Your task to perform on an android device: turn vacation reply on in the gmail app Image 0: 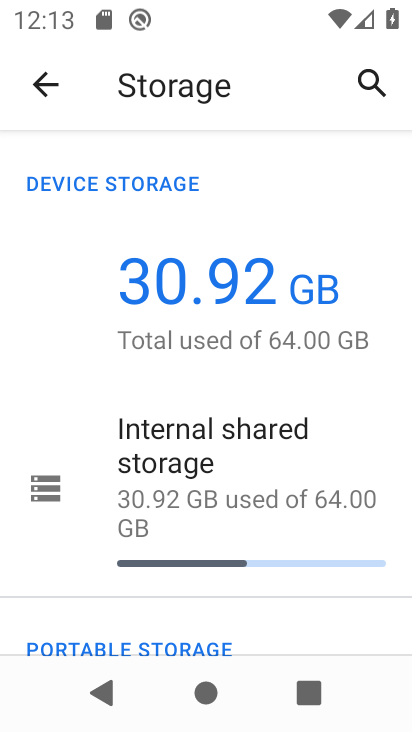
Step 0: press home button
Your task to perform on an android device: turn vacation reply on in the gmail app Image 1: 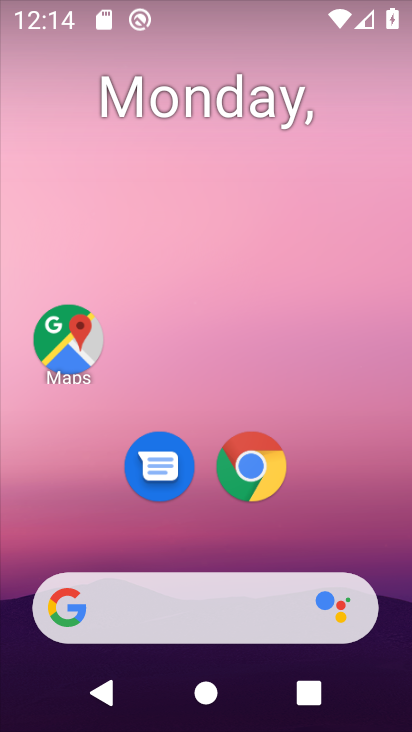
Step 1: drag from (242, 535) to (199, 48)
Your task to perform on an android device: turn vacation reply on in the gmail app Image 2: 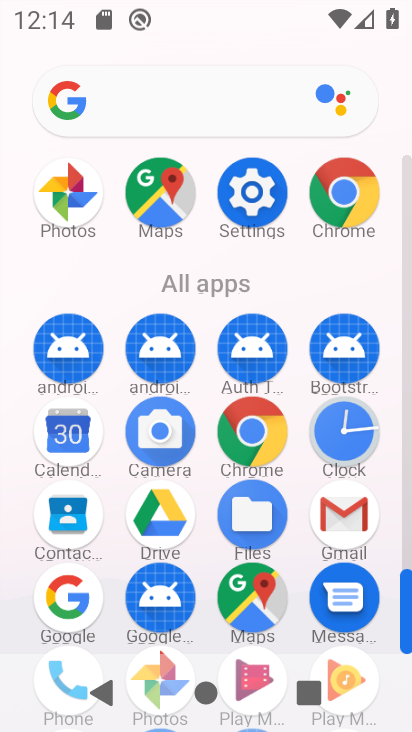
Step 2: click (351, 529)
Your task to perform on an android device: turn vacation reply on in the gmail app Image 3: 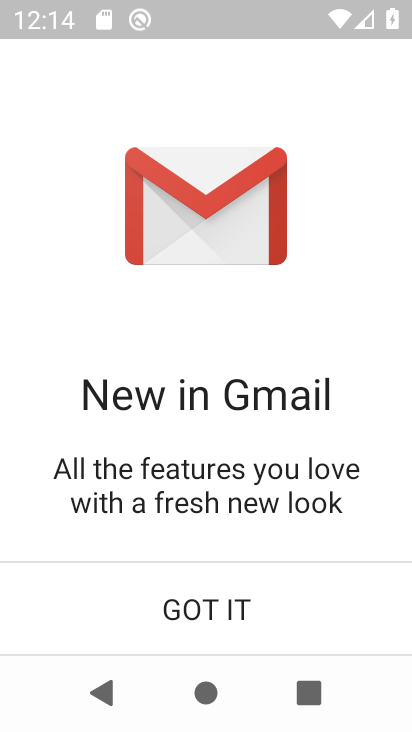
Step 3: click (194, 619)
Your task to perform on an android device: turn vacation reply on in the gmail app Image 4: 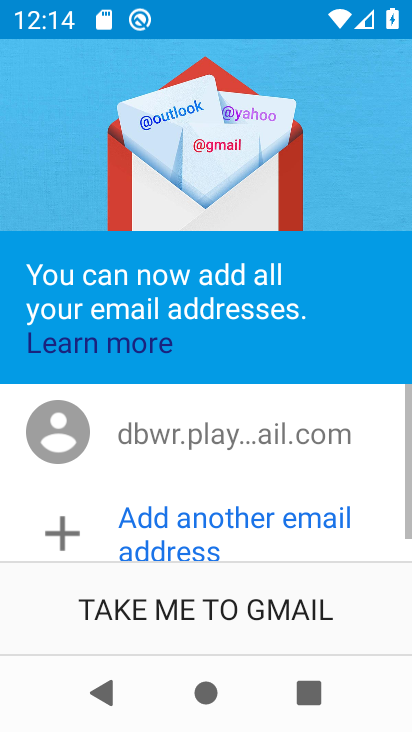
Step 4: click (194, 619)
Your task to perform on an android device: turn vacation reply on in the gmail app Image 5: 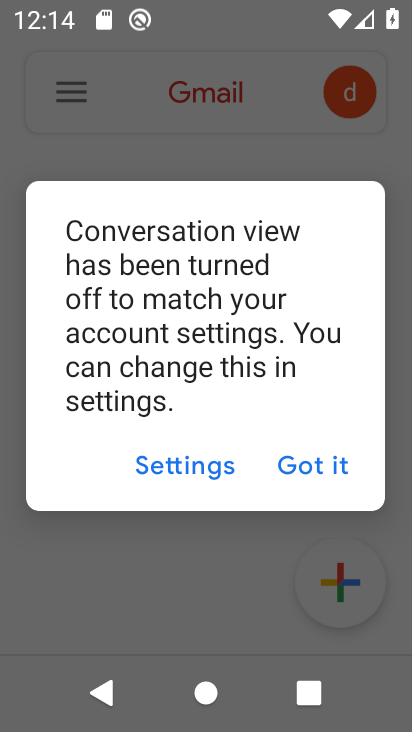
Step 5: click (300, 480)
Your task to perform on an android device: turn vacation reply on in the gmail app Image 6: 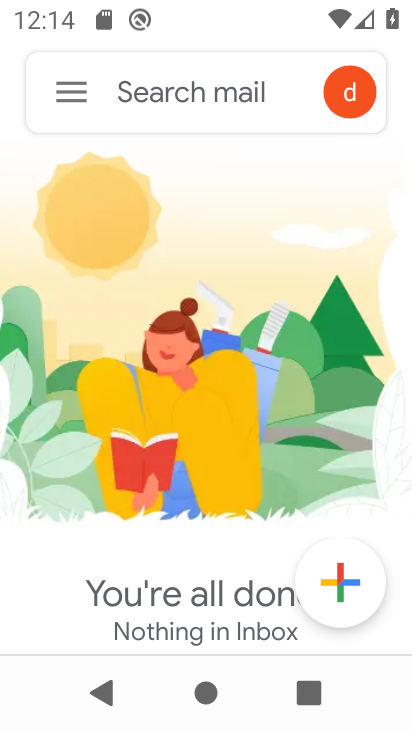
Step 6: click (61, 79)
Your task to perform on an android device: turn vacation reply on in the gmail app Image 7: 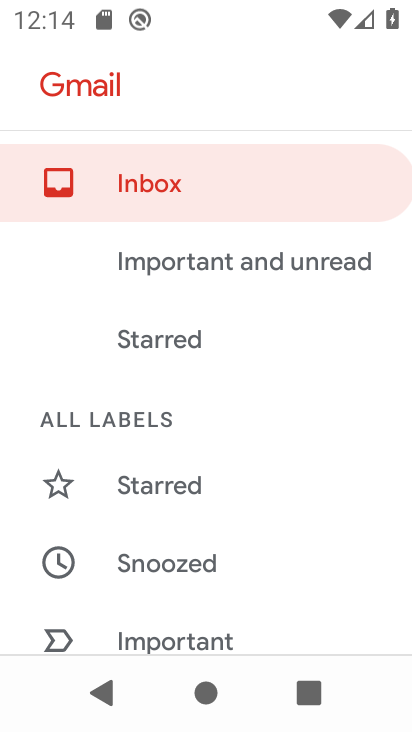
Step 7: drag from (173, 502) to (247, 10)
Your task to perform on an android device: turn vacation reply on in the gmail app Image 8: 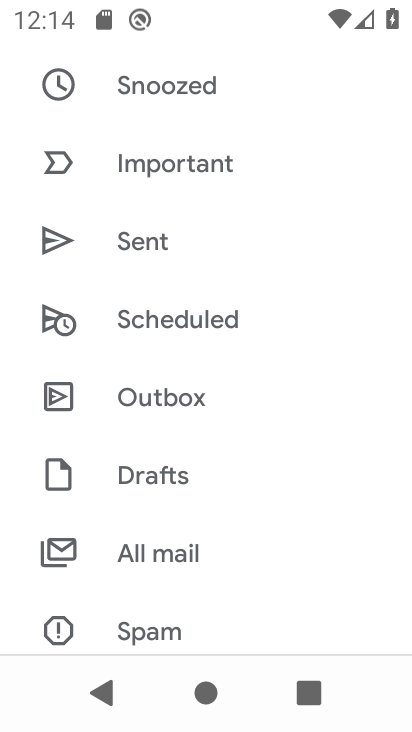
Step 8: drag from (160, 600) to (170, 267)
Your task to perform on an android device: turn vacation reply on in the gmail app Image 9: 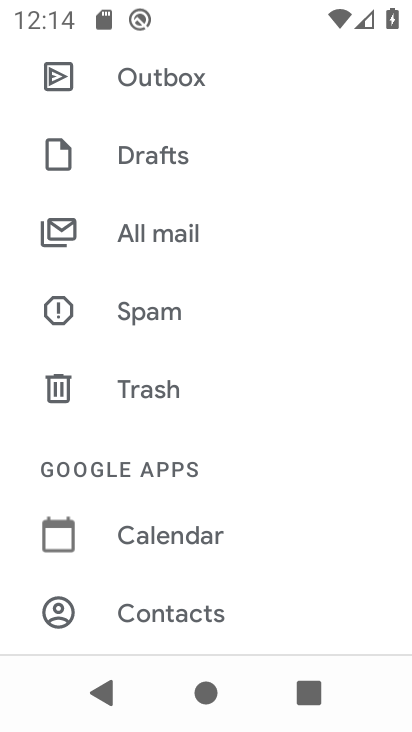
Step 9: drag from (193, 606) to (207, 183)
Your task to perform on an android device: turn vacation reply on in the gmail app Image 10: 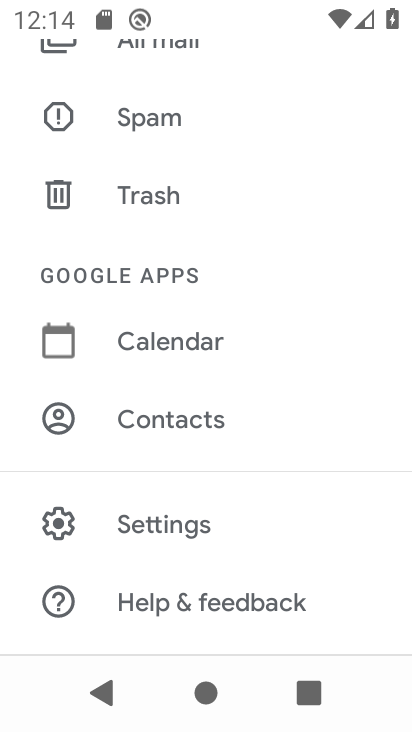
Step 10: click (147, 518)
Your task to perform on an android device: turn vacation reply on in the gmail app Image 11: 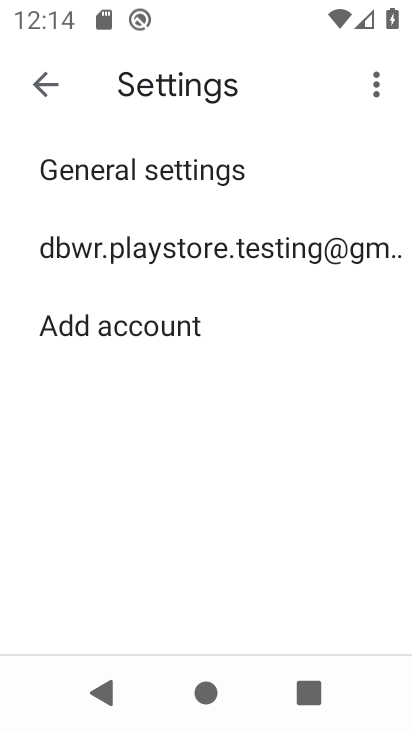
Step 11: click (185, 260)
Your task to perform on an android device: turn vacation reply on in the gmail app Image 12: 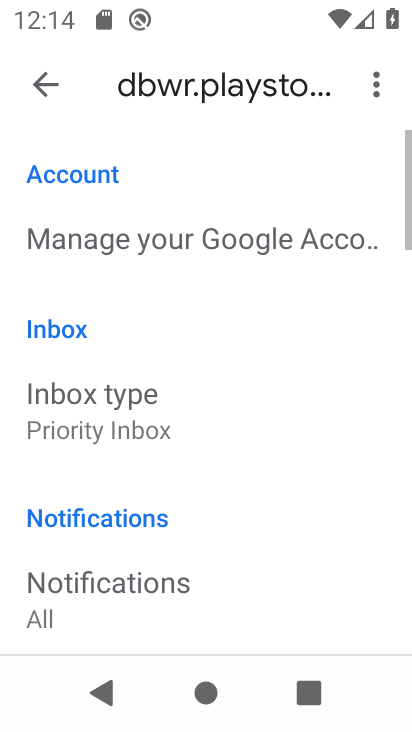
Step 12: drag from (143, 622) to (217, 140)
Your task to perform on an android device: turn vacation reply on in the gmail app Image 13: 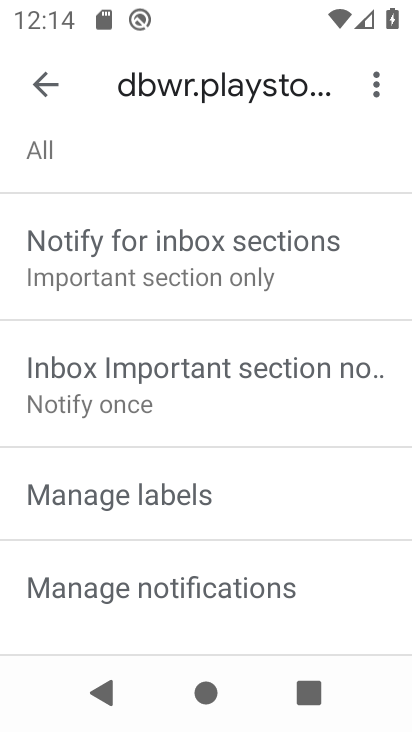
Step 13: drag from (186, 571) to (176, 81)
Your task to perform on an android device: turn vacation reply on in the gmail app Image 14: 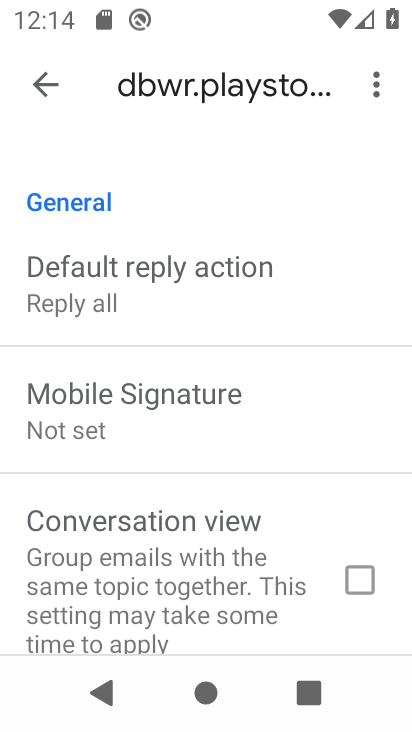
Step 14: drag from (110, 591) to (164, 74)
Your task to perform on an android device: turn vacation reply on in the gmail app Image 15: 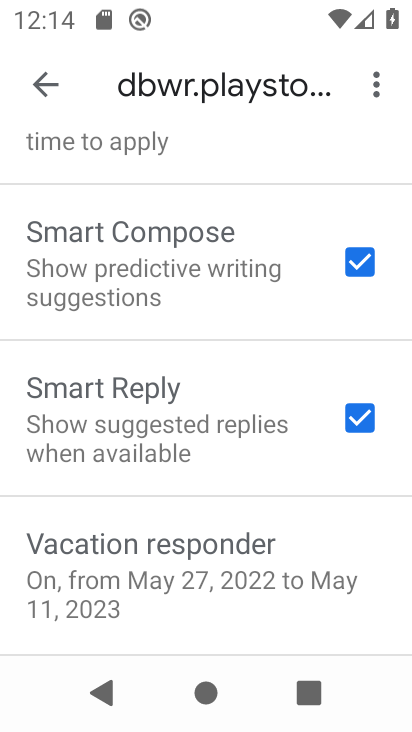
Step 15: click (123, 582)
Your task to perform on an android device: turn vacation reply on in the gmail app Image 16: 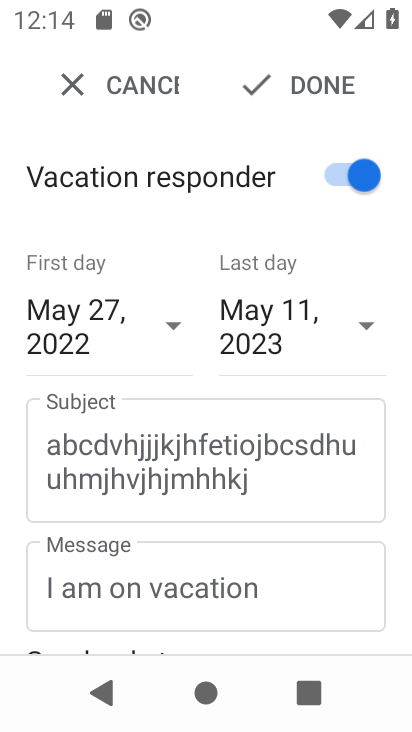
Step 16: task complete